Your task to perform on an android device: toggle priority inbox in the gmail app Image 0: 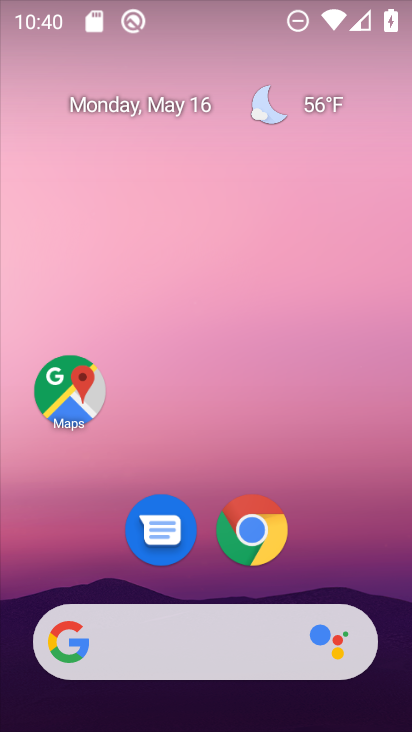
Step 0: drag from (371, 551) to (363, 134)
Your task to perform on an android device: toggle priority inbox in the gmail app Image 1: 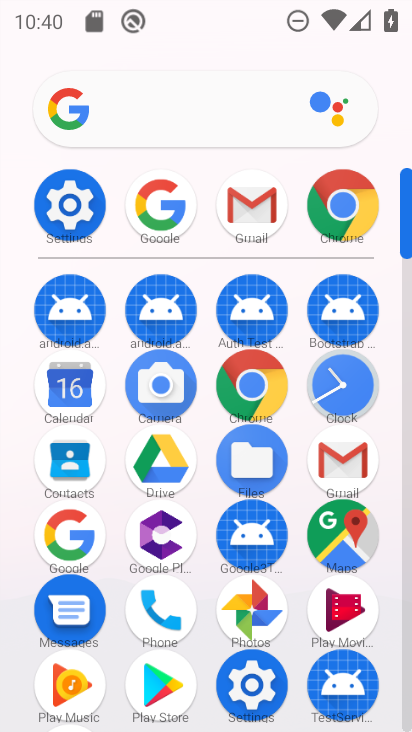
Step 1: click (350, 467)
Your task to perform on an android device: toggle priority inbox in the gmail app Image 2: 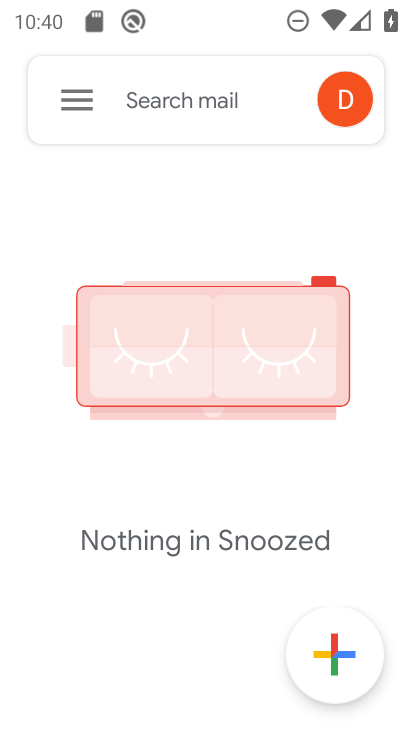
Step 2: click (77, 108)
Your task to perform on an android device: toggle priority inbox in the gmail app Image 3: 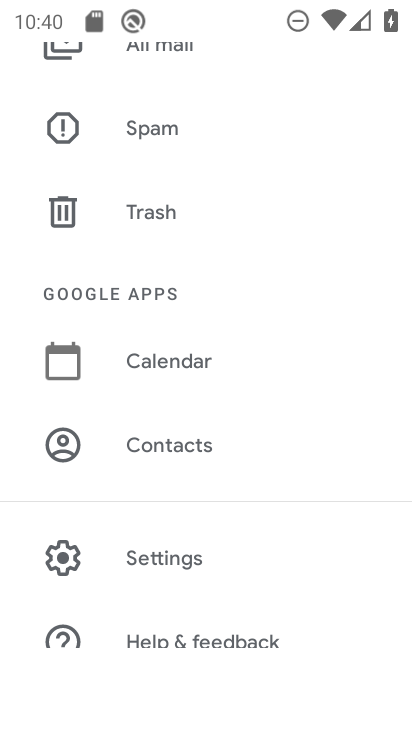
Step 3: drag from (291, 269) to (298, 402)
Your task to perform on an android device: toggle priority inbox in the gmail app Image 4: 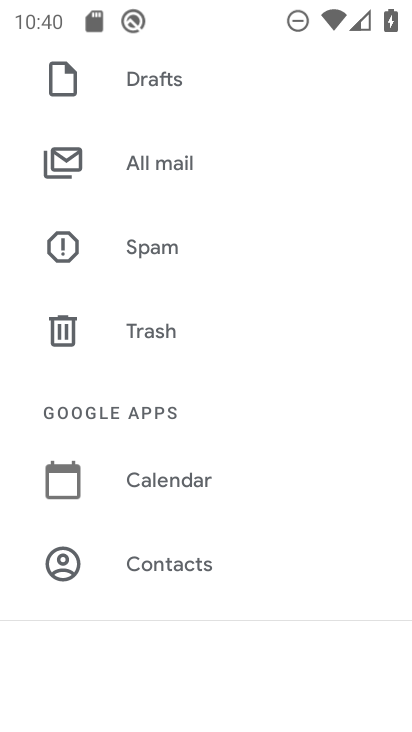
Step 4: drag from (324, 247) to (300, 405)
Your task to perform on an android device: toggle priority inbox in the gmail app Image 5: 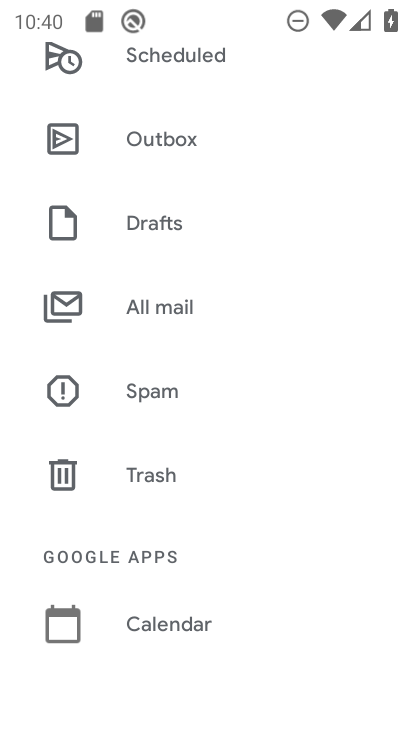
Step 5: drag from (303, 269) to (307, 432)
Your task to perform on an android device: toggle priority inbox in the gmail app Image 6: 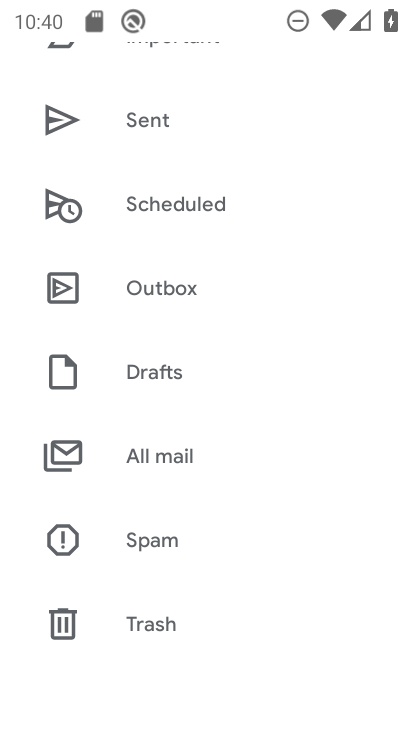
Step 6: drag from (337, 242) to (293, 405)
Your task to perform on an android device: toggle priority inbox in the gmail app Image 7: 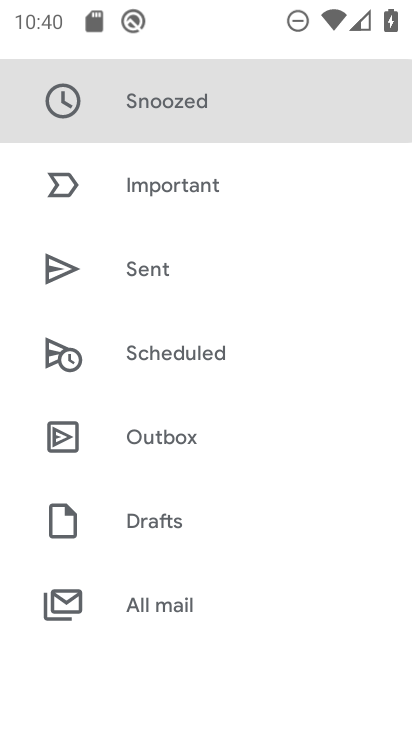
Step 7: drag from (298, 280) to (280, 423)
Your task to perform on an android device: toggle priority inbox in the gmail app Image 8: 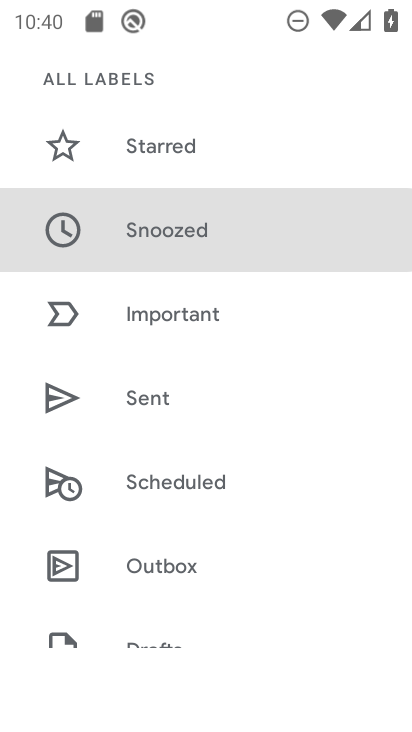
Step 8: drag from (332, 297) to (306, 444)
Your task to perform on an android device: toggle priority inbox in the gmail app Image 9: 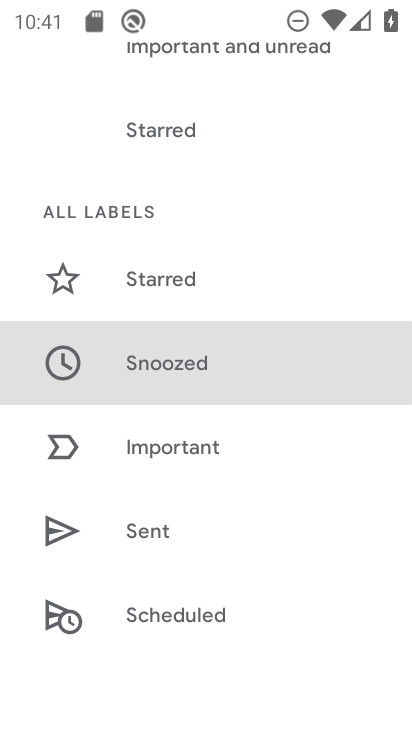
Step 9: drag from (308, 297) to (263, 496)
Your task to perform on an android device: toggle priority inbox in the gmail app Image 10: 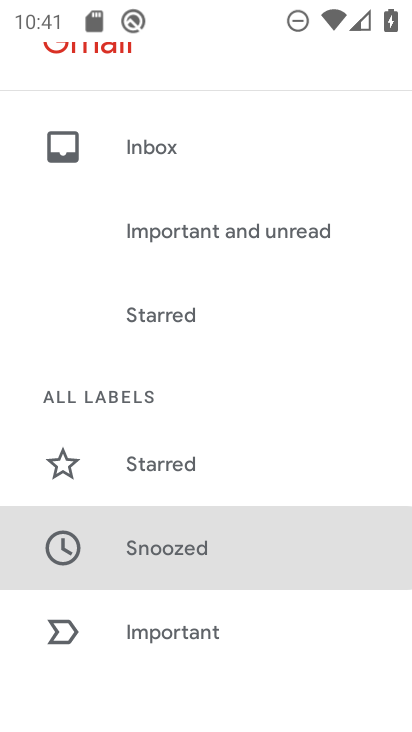
Step 10: drag from (324, 306) to (301, 517)
Your task to perform on an android device: toggle priority inbox in the gmail app Image 11: 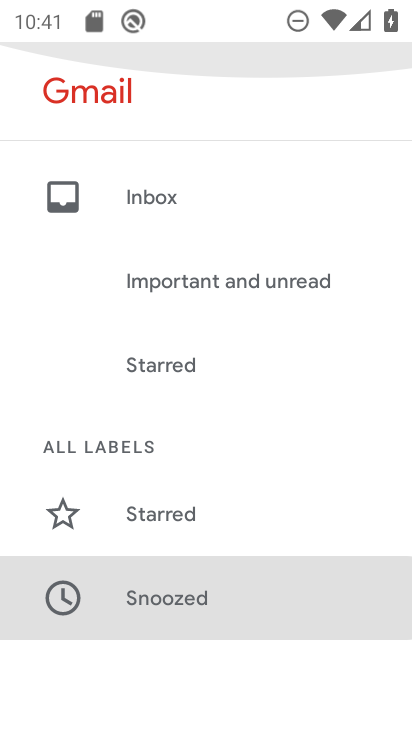
Step 11: drag from (301, 517) to (351, 328)
Your task to perform on an android device: toggle priority inbox in the gmail app Image 12: 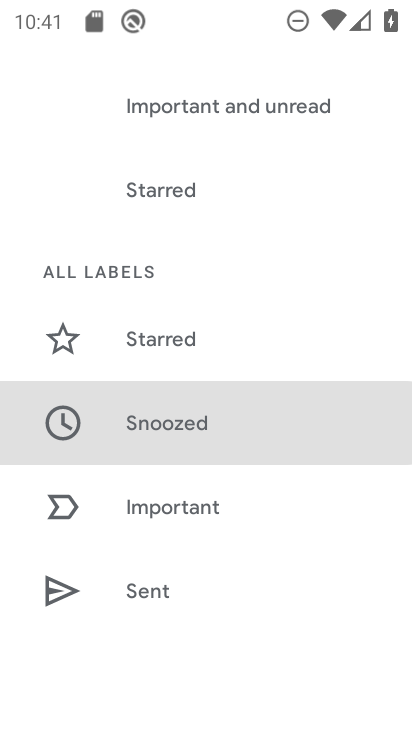
Step 12: drag from (321, 543) to (370, 368)
Your task to perform on an android device: toggle priority inbox in the gmail app Image 13: 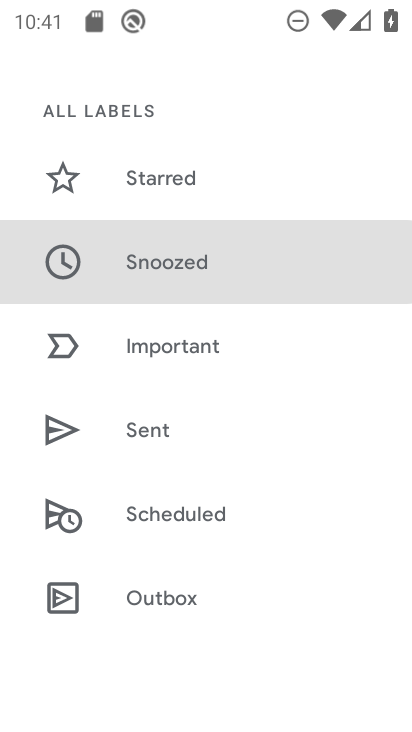
Step 13: drag from (324, 598) to (356, 405)
Your task to perform on an android device: toggle priority inbox in the gmail app Image 14: 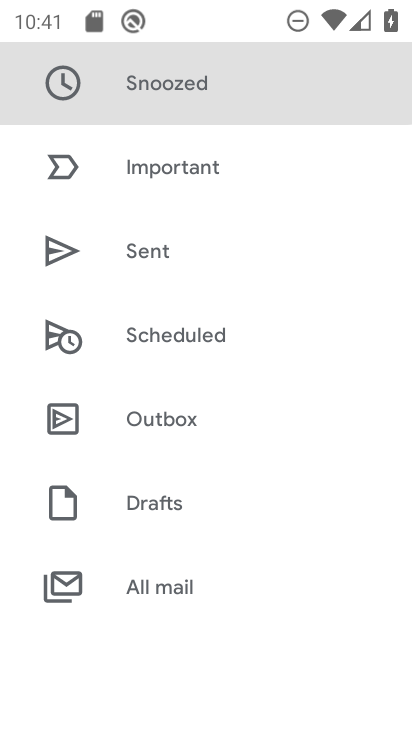
Step 14: drag from (319, 565) to (351, 407)
Your task to perform on an android device: toggle priority inbox in the gmail app Image 15: 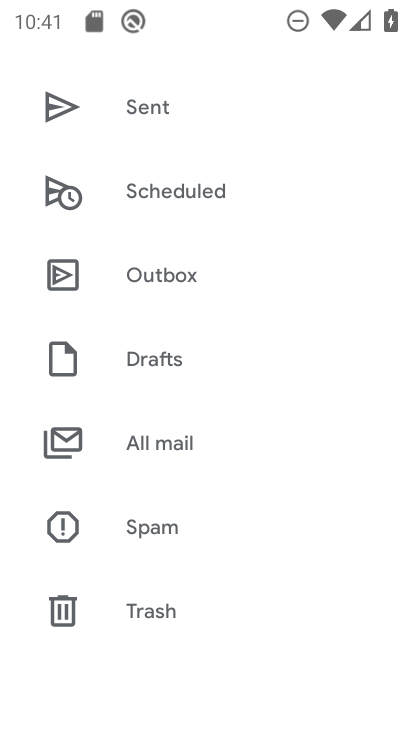
Step 15: drag from (324, 537) to (337, 484)
Your task to perform on an android device: toggle priority inbox in the gmail app Image 16: 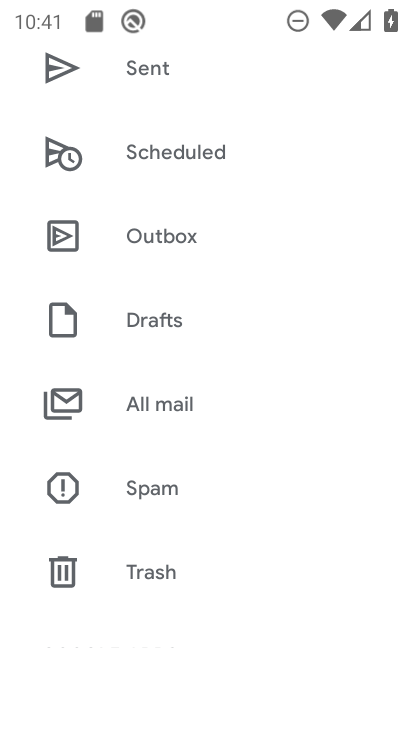
Step 16: drag from (323, 554) to (315, 433)
Your task to perform on an android device: toggle priority inbox in the gmail app Image 17: 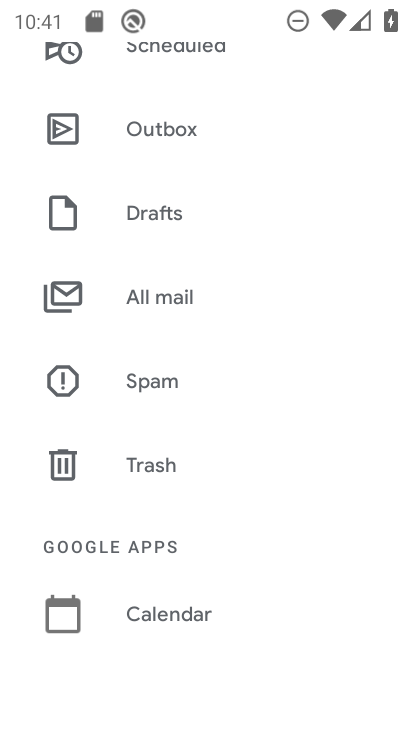
Step 17: drag from (310, 576) to (342, 431)
Your task to perform on an android device: toggle priority inbox in the gmail app Image 18: 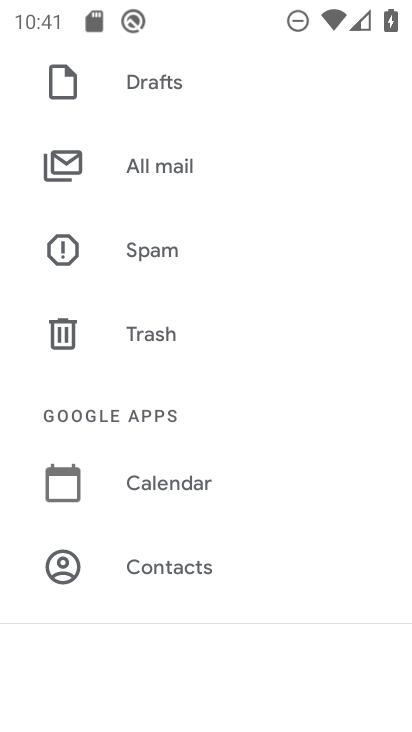
Step 18: click (350, 539)
Your task to perform on an android device: toggle priority inbox in the gmail app Image 19: 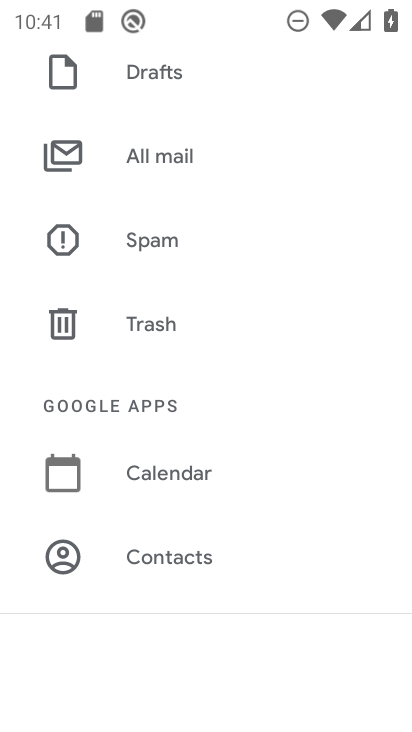
Step 19: drag from (352, 552) to (359, 422)
Your task to perform on an android device: toggle priority inbox in the gmail app Image 20: 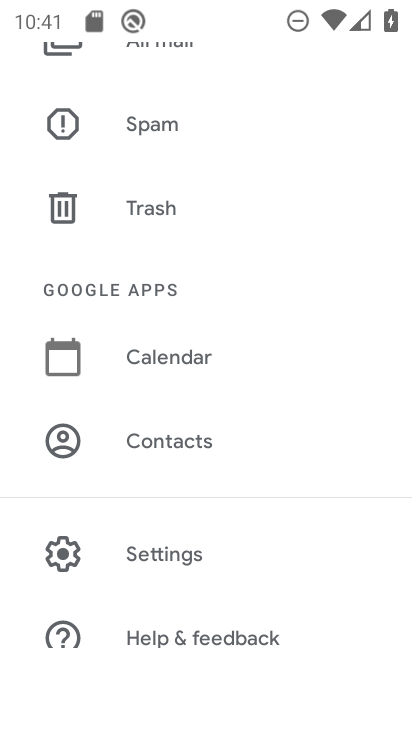
Step 20: drag from (311, 552) to (311, 455)
Your task to perform on an android device: toggle priority inbox in the gmail app Image 21: 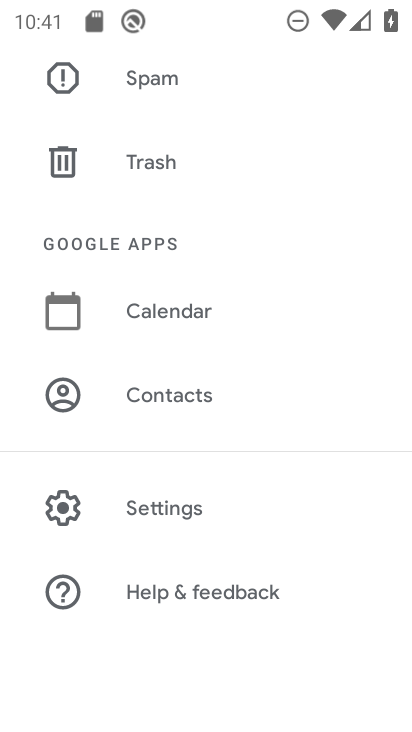
Step 21: drag from (340, 600) to (360, 390)
Your task to perform on an android device: toggle priority inbox in the gmail app Image 22: 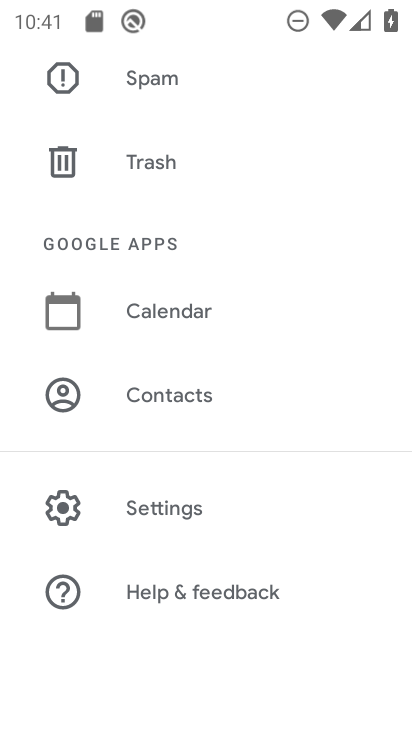
Step 22: click (217, 524)
Your task to perform on an android device: toggle priority inbox in the gmail app Image 23: 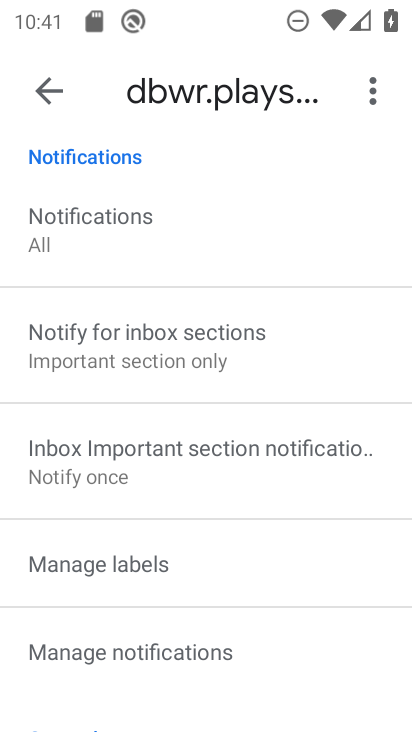
Step 23: drag from (306, 589) to (315, 493)
Your task to perform on an android device: toggle priority inbox in the gmail app Image 24: 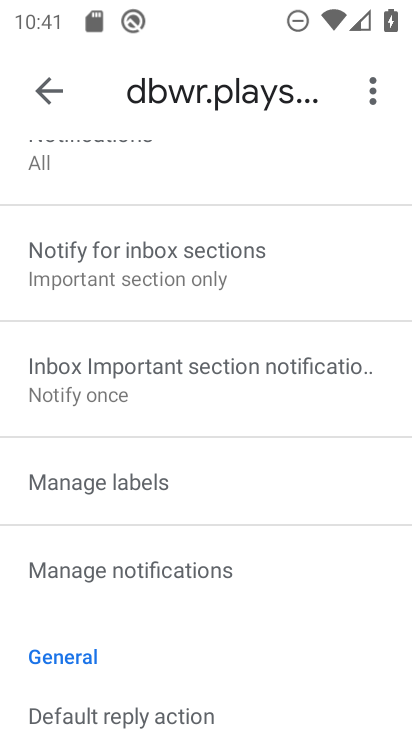
Step 24: drag from (299, 629) to (318, 499)
Your task to perform on an android device: toggle priority inbox in the gmail app Image 25: 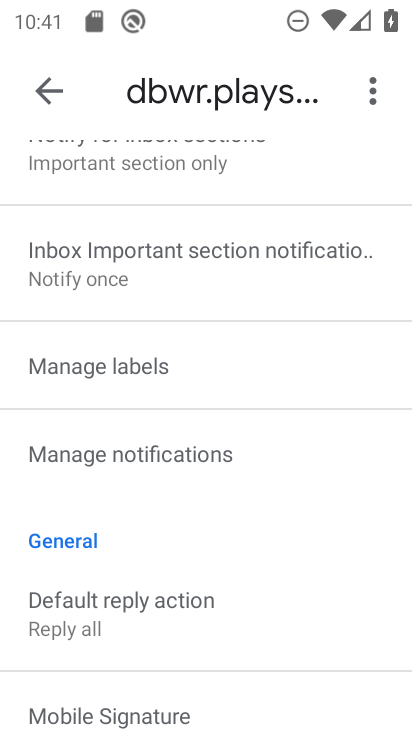
Step 25: drag from (312, 620) to (305, 489)
Your task to perform on an android device: toggle priority inbox in the gmail app Image 26: 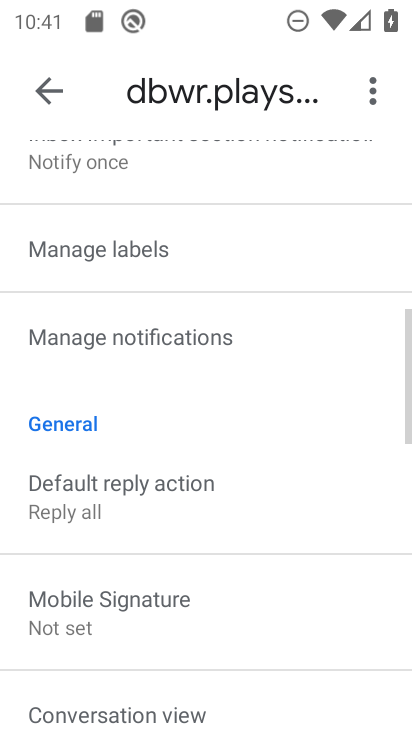
Step 26: drag from (323, 617) to (316, 439)
Your task to perform on an android device: toggle priority inbox in the gmail app Image 27: 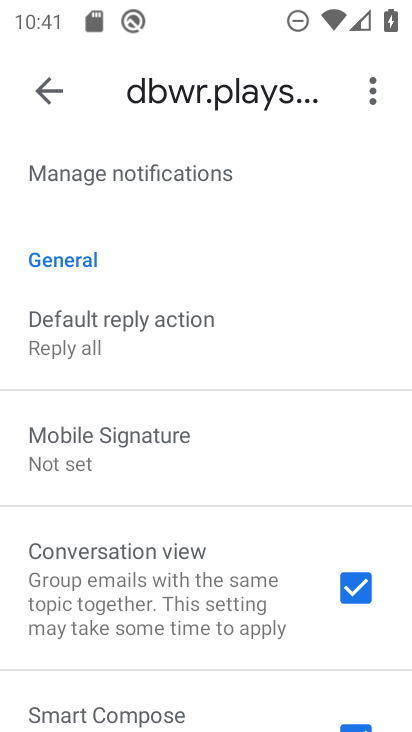
Step 27: drag from (327, 565) to (325, 419)
Your task to perform on an android device: toggle priority inbox in the gmail app Image 28: 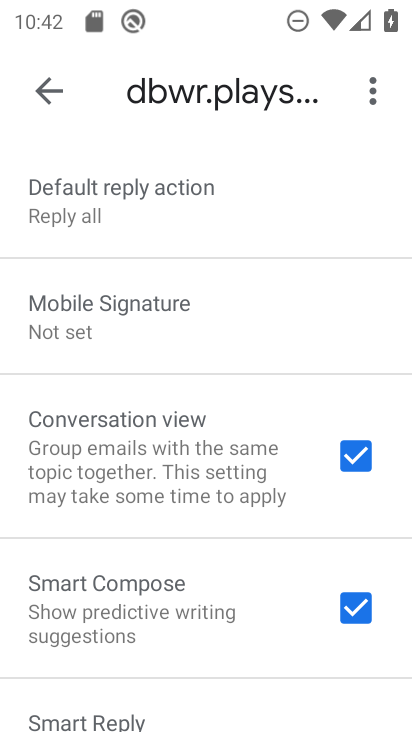
Step 28: drag from (296, 608) to (308, 508)
Your task to perform on an android device: toggle priority inbox in the gmail app Image 29: 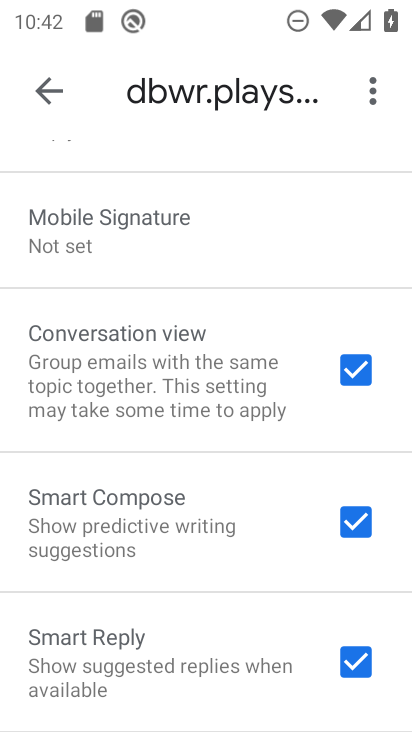
Step 29: drag from (308, 660) to (308, 564)
Your task to perform on an android device: toggle priority inbox in the gmail app Image 30: 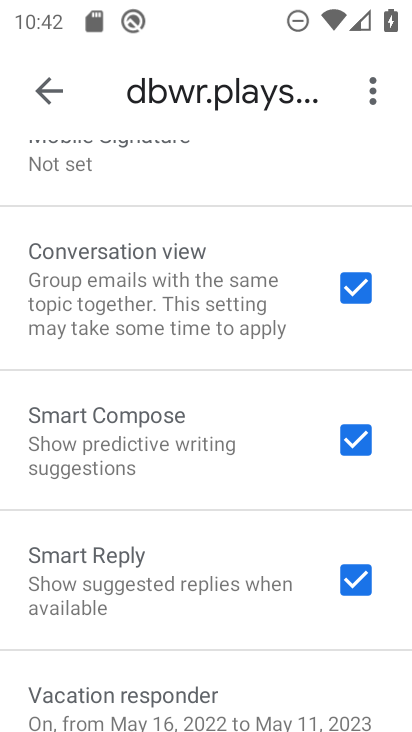
Step 30: drag from (328, 643) to (334, 585)
Your task to perform on an android device: toggle priority inbox in the gmail app Image 31: 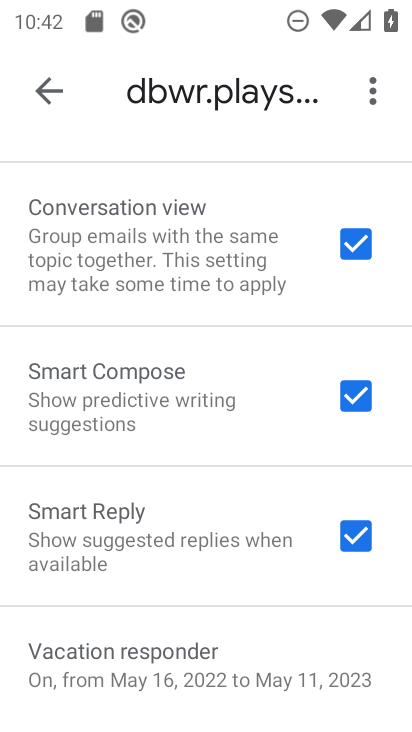
Step 31: drag from (317, 623) to (285, 401)
Your task to perform on an android device: toggle priority inbox in the gmail app Image 32: 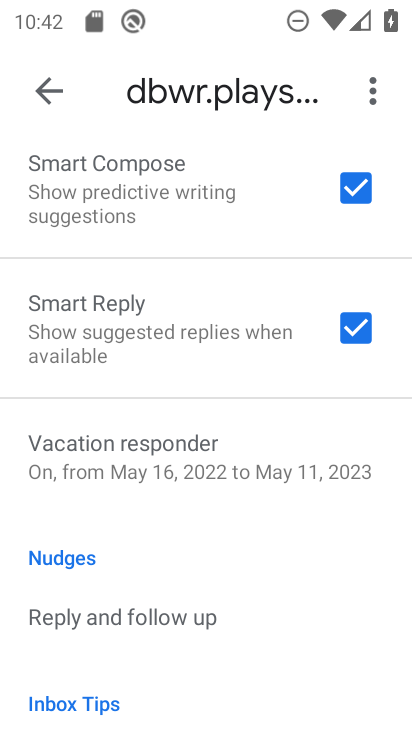
Step 32: drag from (284, 648) to (305, 499)
Your task to perform on an android device: toggle priority inbox in the gmail app Image 33: 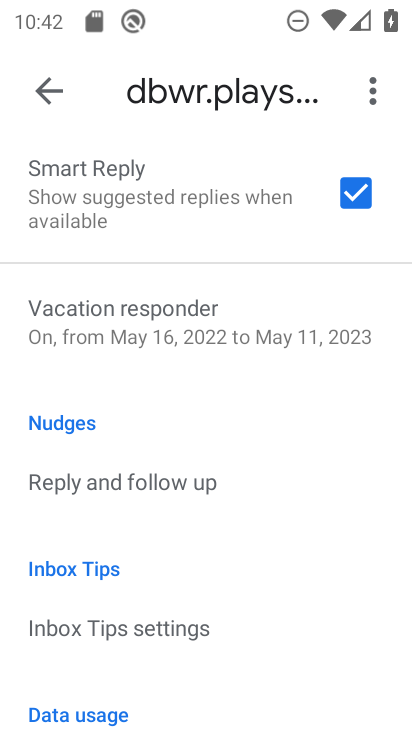
Step 33: drag from (317, 453) to (298, 592)
Your task to perform on an android device: toggle priority inbox in the gmail app Image 34: 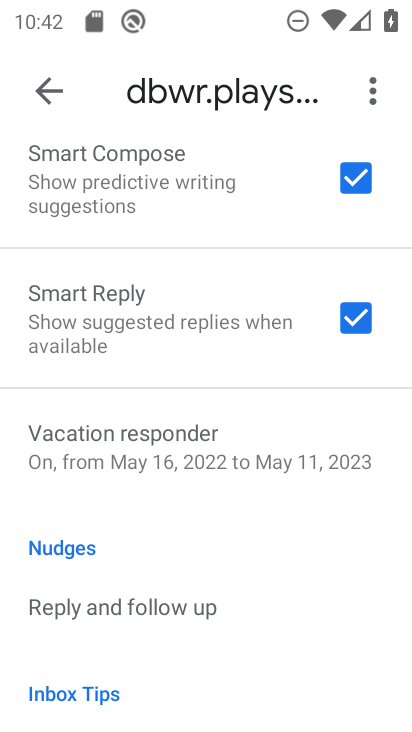
Step 34: click (303, 537)
Your task to perform on an android device: toggle priority inbox in the gmail app Image 35: 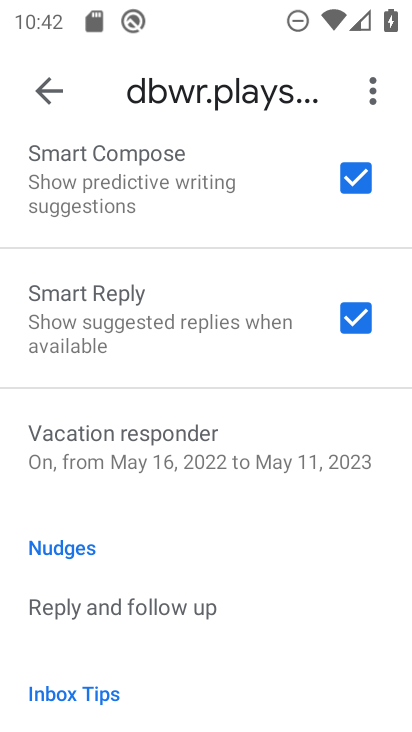
Step 35: task complete